Your task to perform on an android device: Open Youtube and go to the subscriptions tab Image 0: 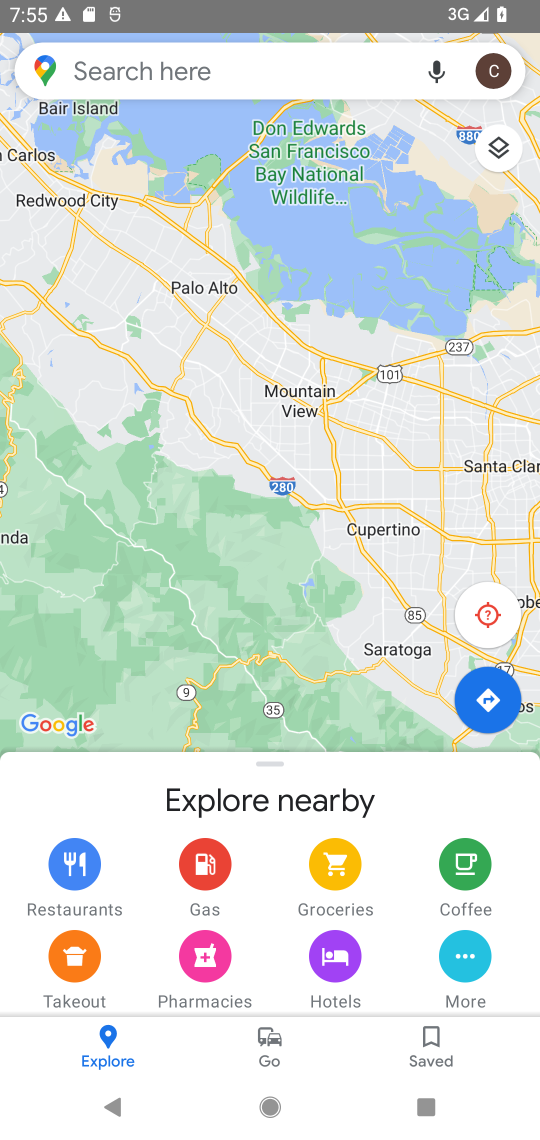
Step 0: press home button
Your task to perform on an android device: Open Youtube and go to the subscriptions tab Image 1: 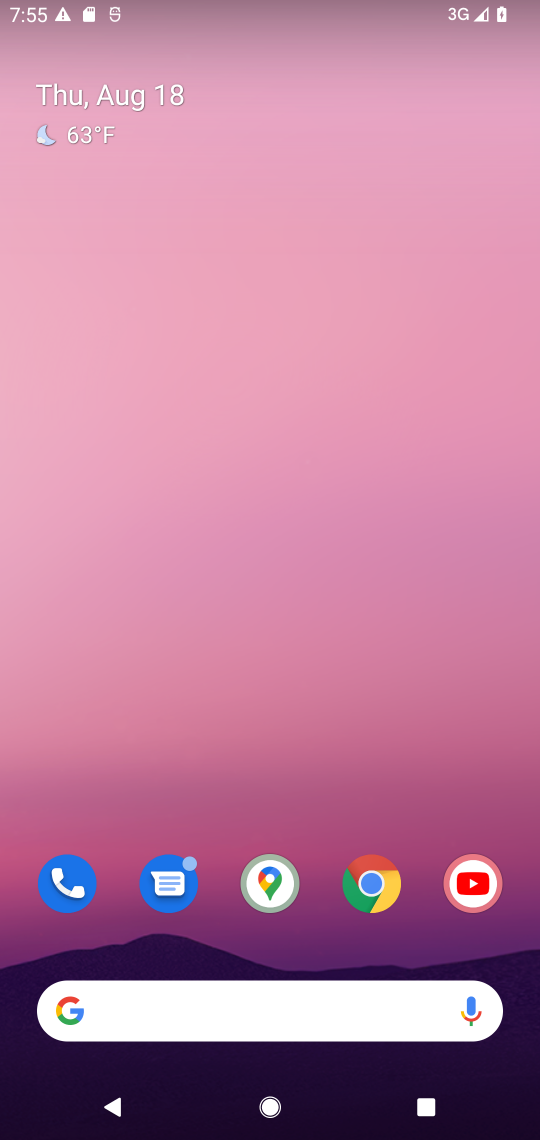
Step 1: click (486, 909)
Your task to perform on an android device: Open Youtube and go to the subscriptions tab Image 2: 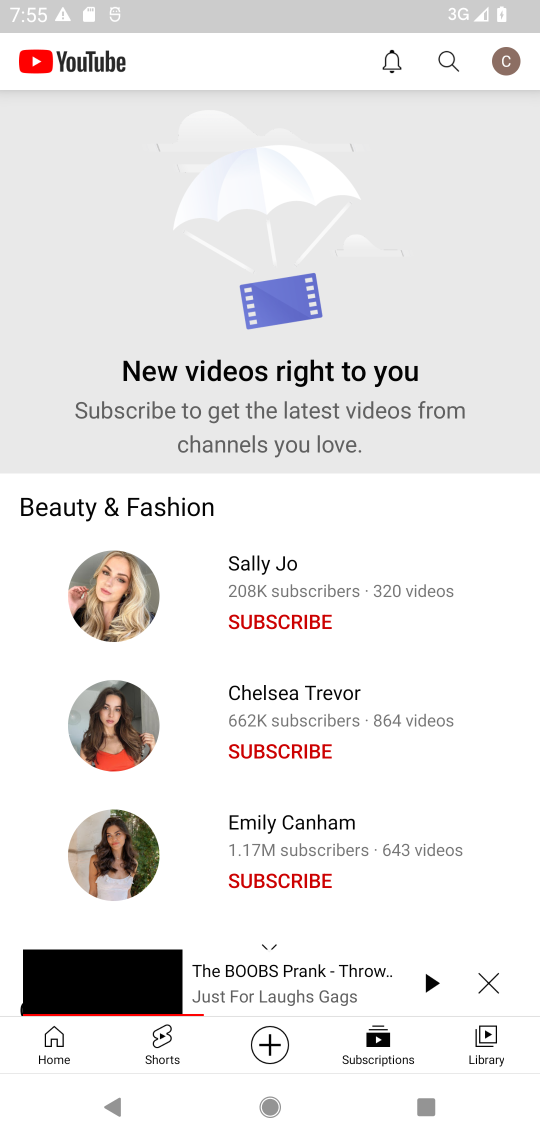
Step 2: click (371, 1051)
Your task to perform on an android device: Open Youtube and go to the subscriptions tab Image 3: 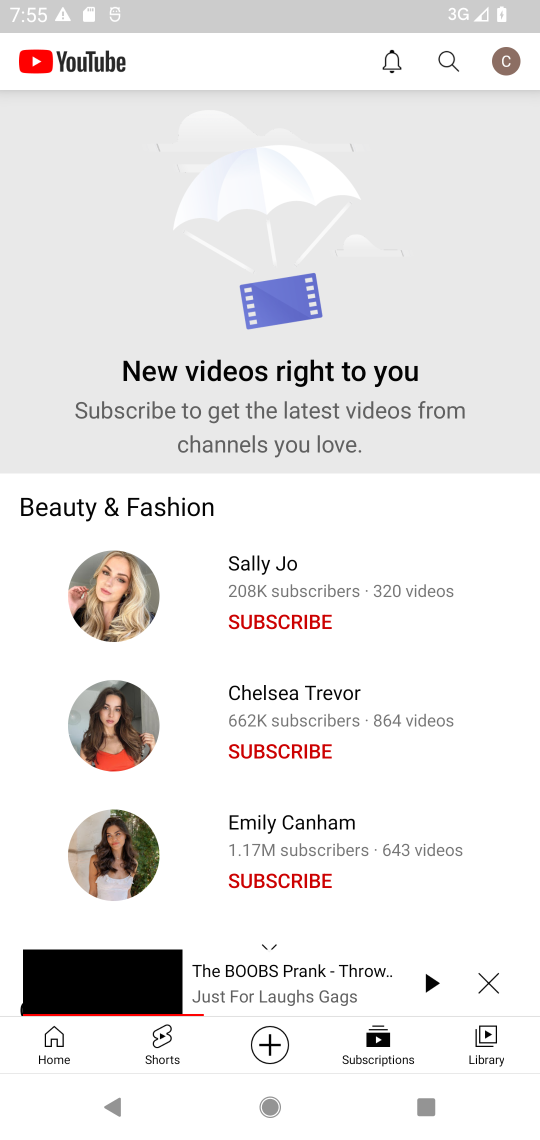
Step 3: task complete